Your task to perform on an android device: set an alarm Image 0: 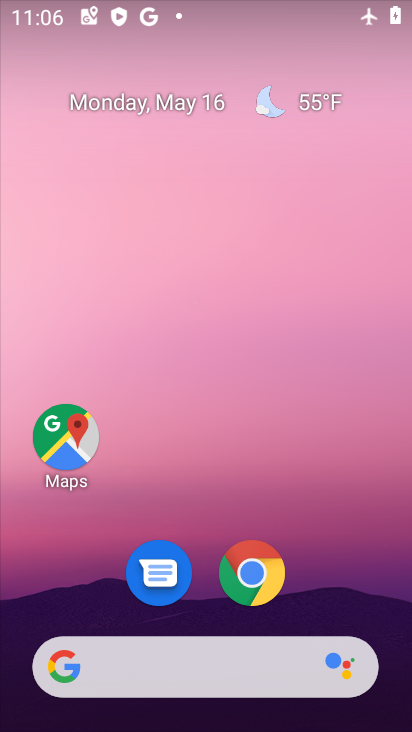
Step 0: drag from (372, 496) to (311, 163)
Your task to perform on an android device: set an alarm Image 1: 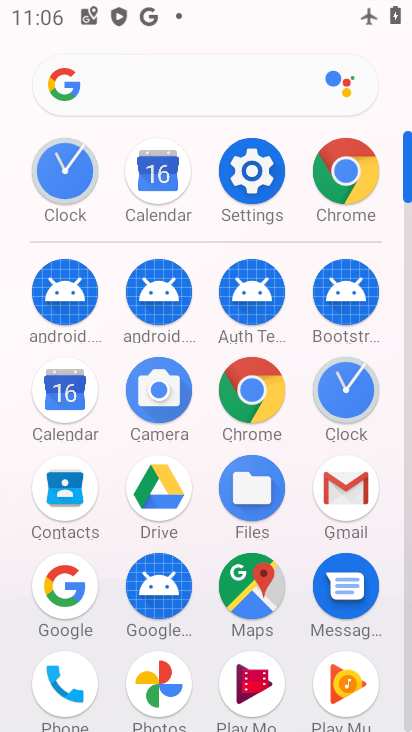
Step 1: click (333, 405)
Your task to perform on an android device: set an alarm Image 2: 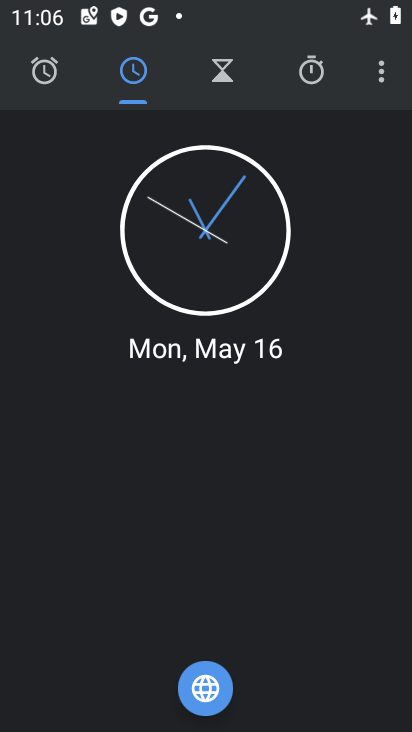
Step 2: click (59, 91)
Your task to perform on an android device: set an alarm Image 3: 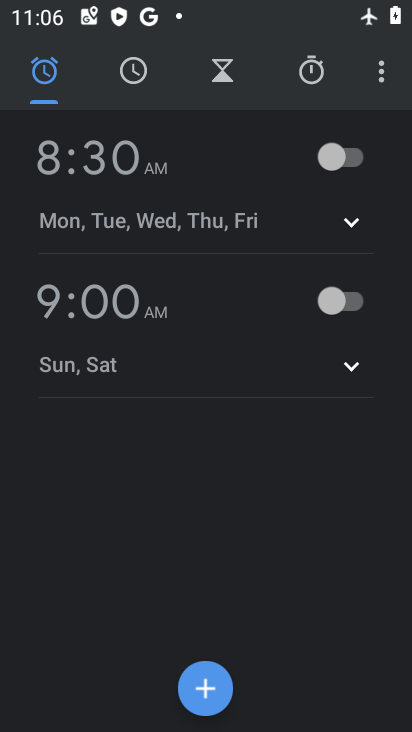
Step 3: click (337, 161)
Your task to perform on an android device: set an alarm Image 4: 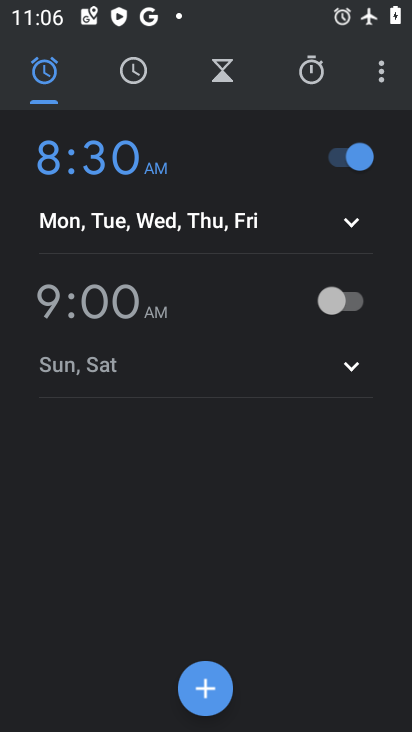
Step 4: task complete